Your task to perform on an android device: Go to Yahoo.com Image 0: 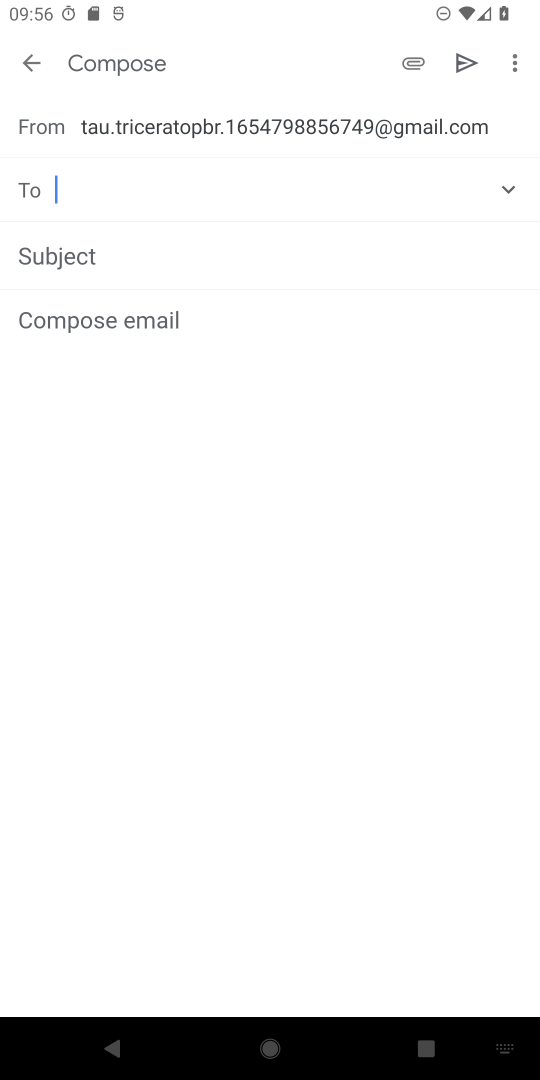
Step 0: press home button
Your task to perform on an android device: Go to Yahoo.com Image 1: 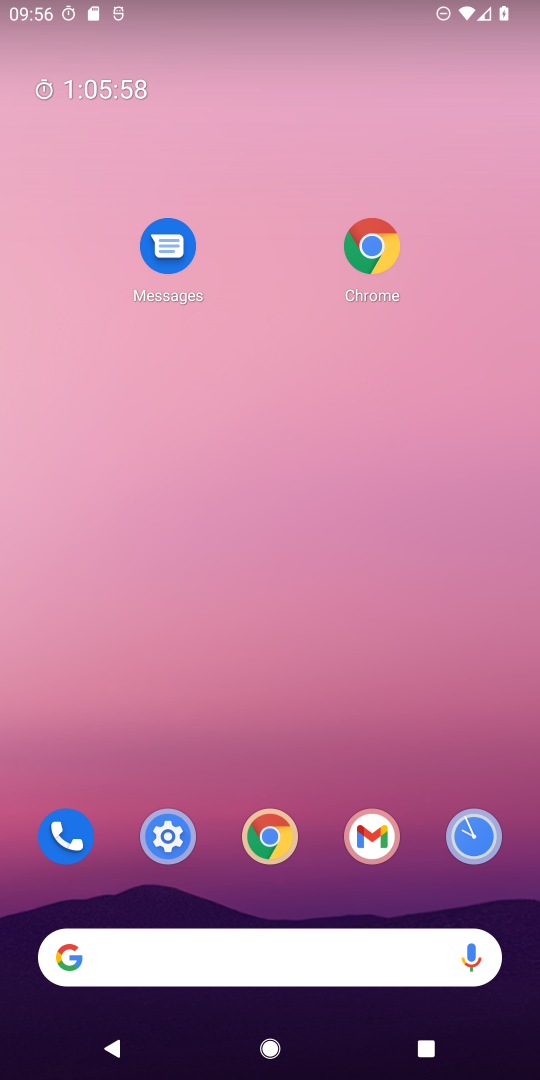
Step 1: drag from (264, 900) to (273, 245)
Your task to perform on an android device: Go to Yahoo.com Image 2: 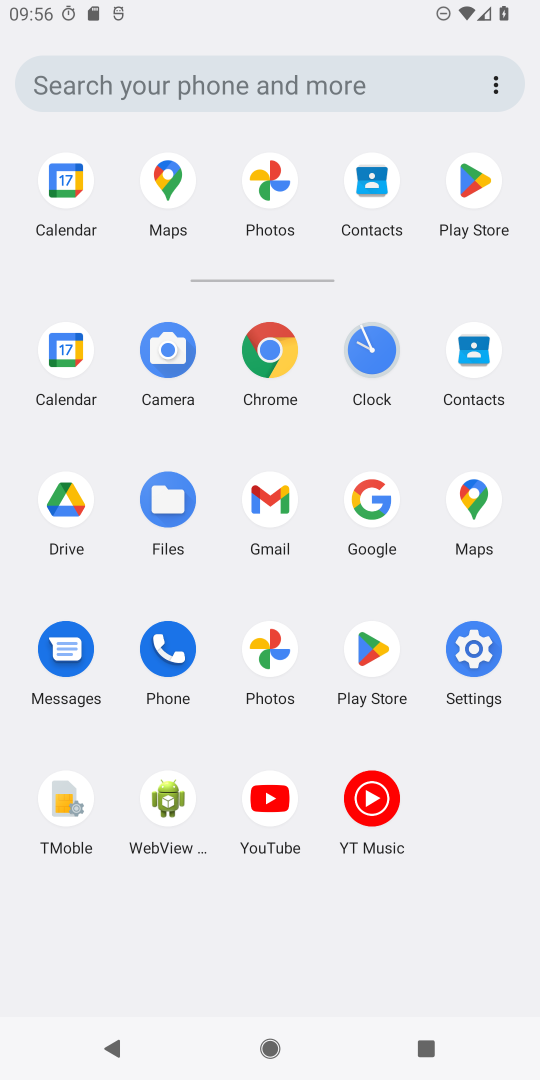
Step 2: click (274, 355)
Your task to perform on an android device: Go to Yahoo.com Image 3: 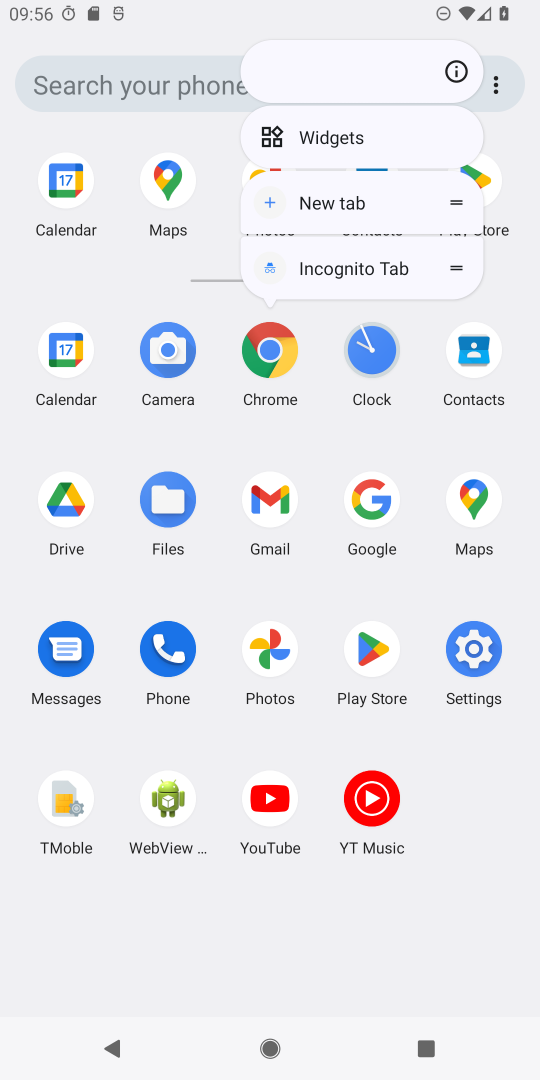
Step 3: click (274, 355)
Your task to perform on an android device: Go to Yahoo.com Image 4: 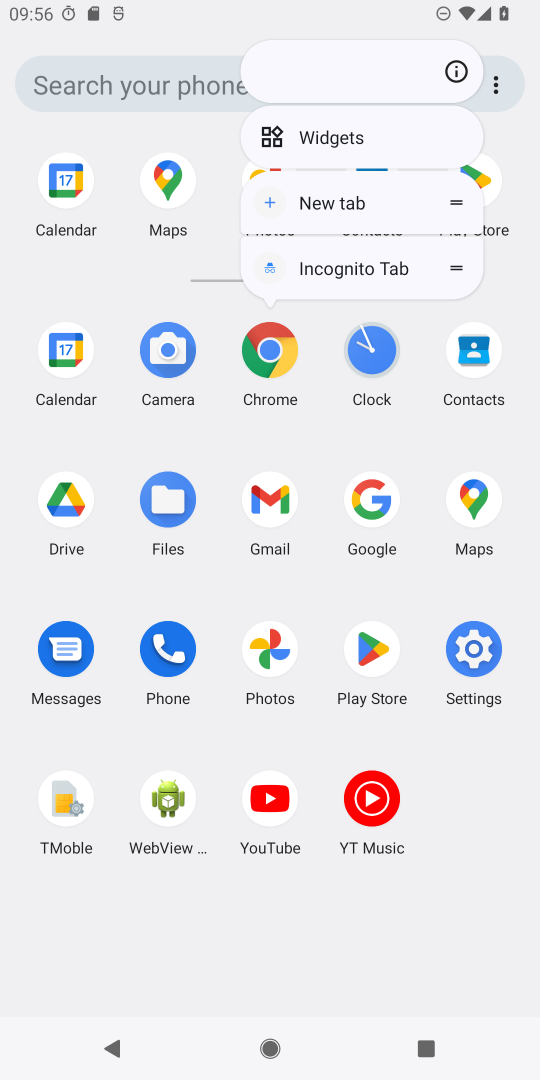
Step 4: click (274, 355)
Your task to perform on an android device: Go to Yahoo.com Image 5: 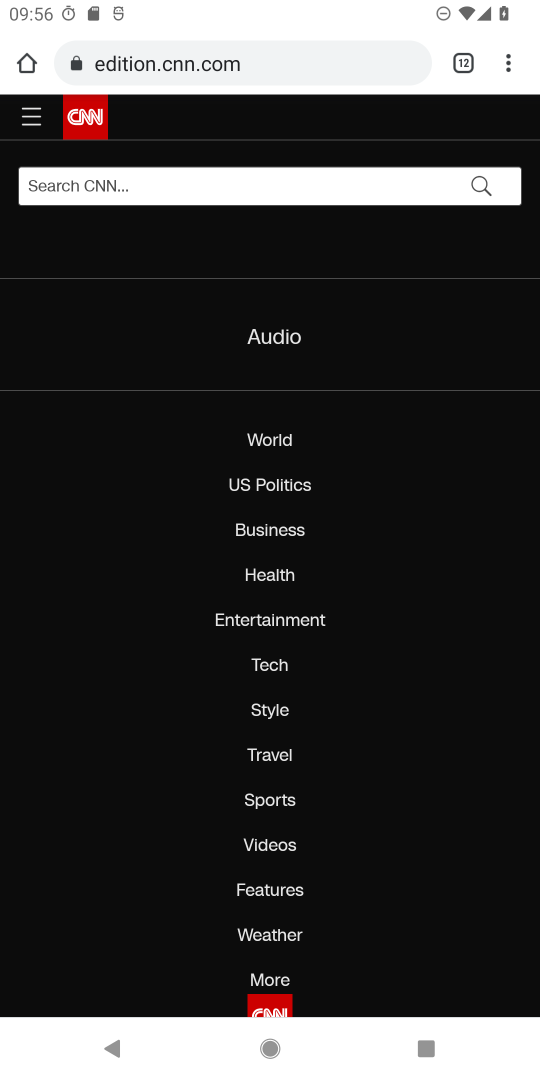
Step 5: click (520, 52)
Your task to perform on an android device: Go to Yahoo.com Image 6: 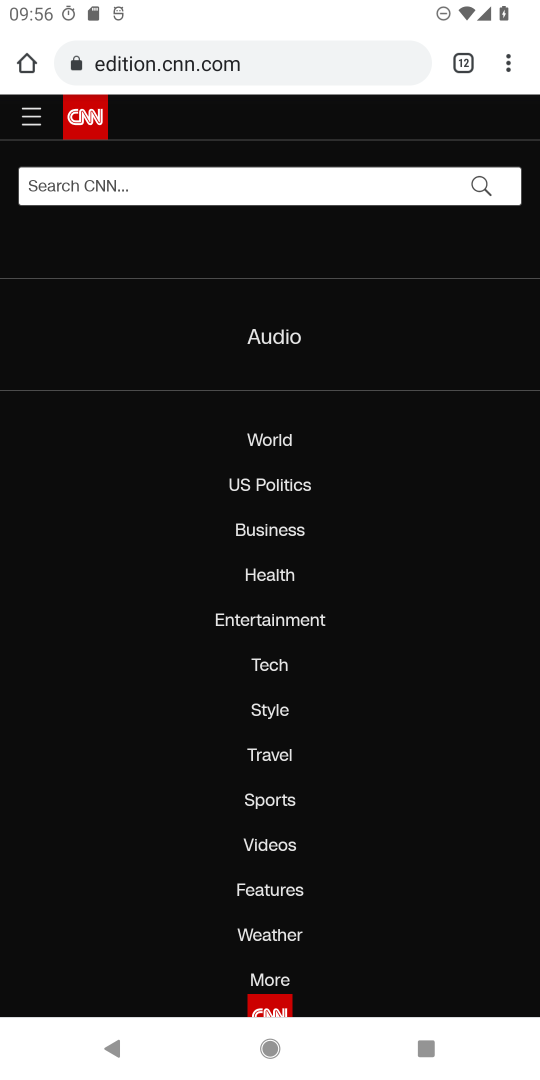
Step 6: click (498, 55)
Your task to perform on an android device: Go to Yahoo.com Image 7: 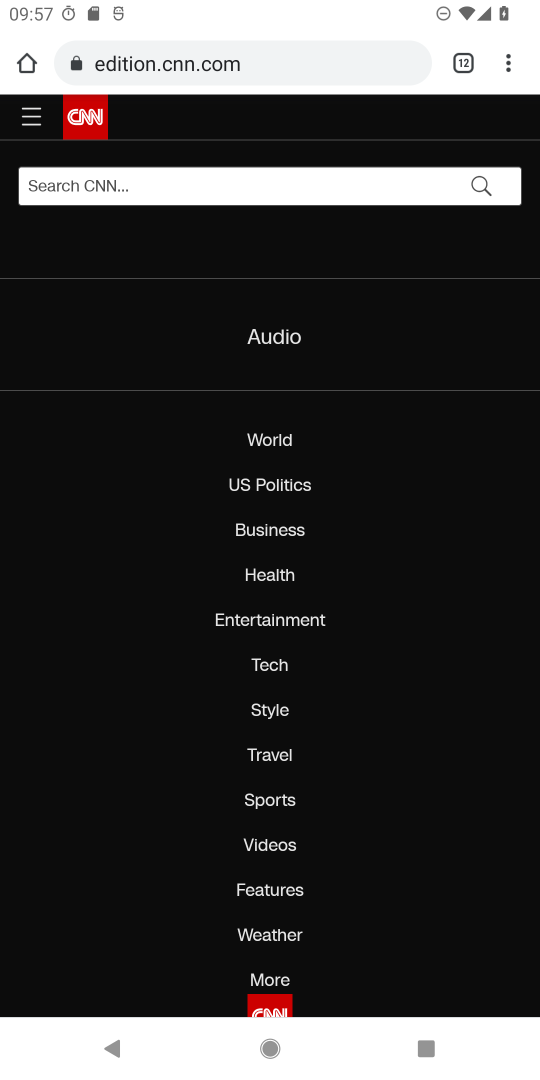
Step 7: click (512, 71)
Your task to perform on an android device: Go to Yahoo.com Image 8: 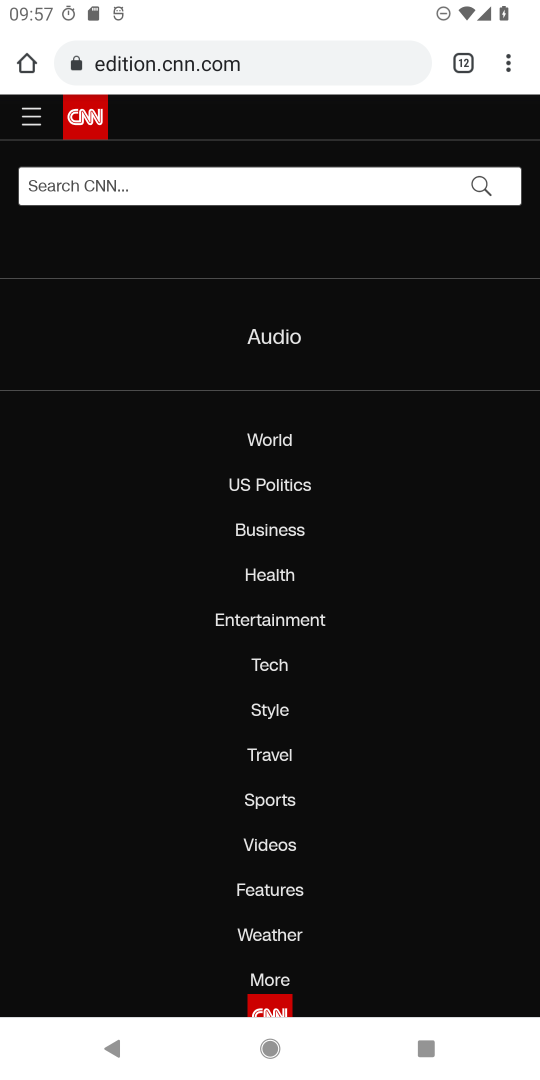
Step 8: click (512, 63)
Your task to perform on an android device: Go to Yahoo.com Image 9: 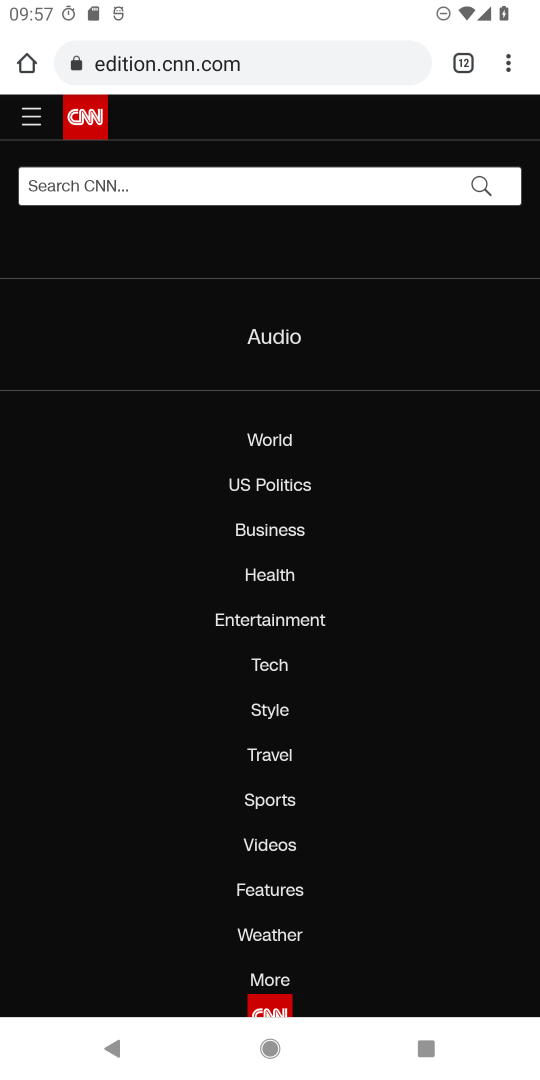
Step 9: click (529, 44)
Your task to perform on an android device: Go to Yahoo.com Image 10: 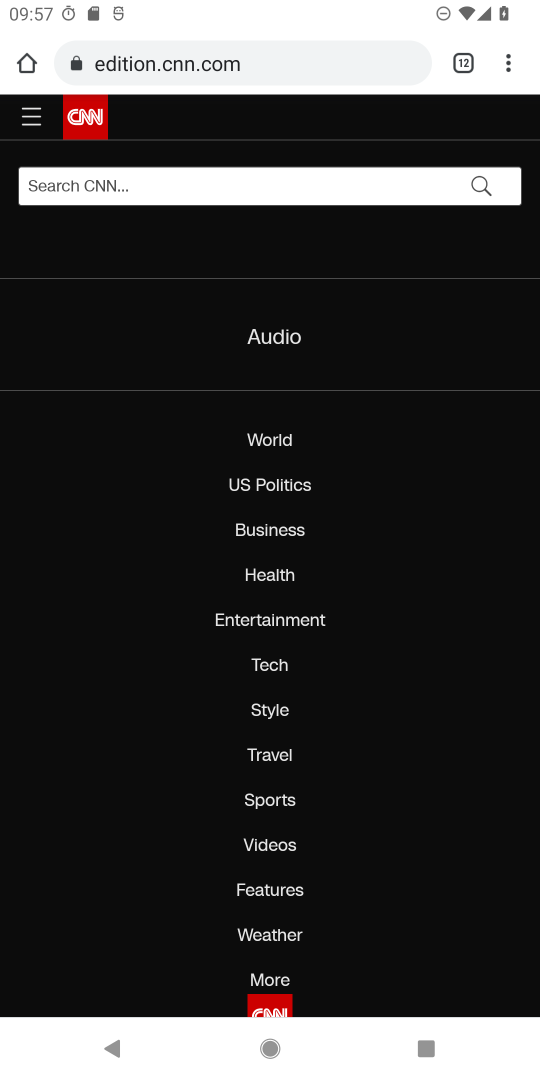
Step 10: click (523, 62)
Your task to perform on an android device: Go to Yahoo.com Image 11: 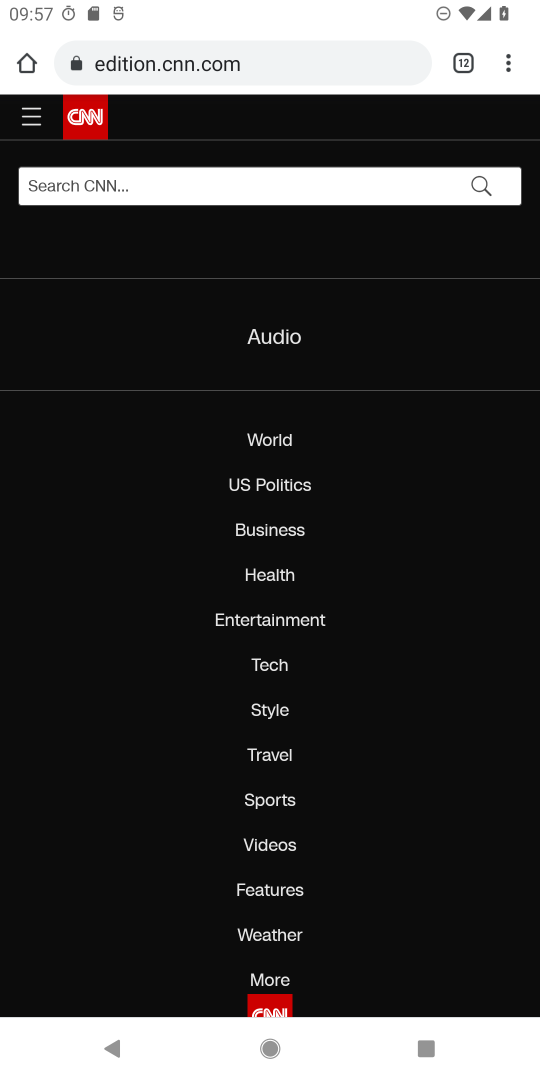
Step 11: click (523, 62)
Your task to perform on an android device: Go to Yahoo.com Image 12: 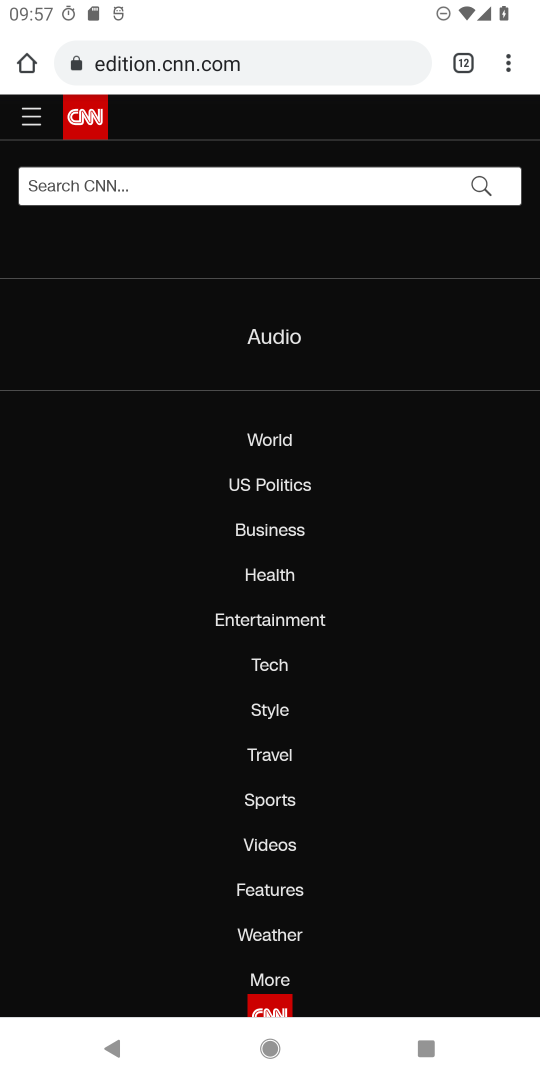
Step 12: click (518, 59)
Your task to perform on an android device: Go to Yahoo.com Image 13: 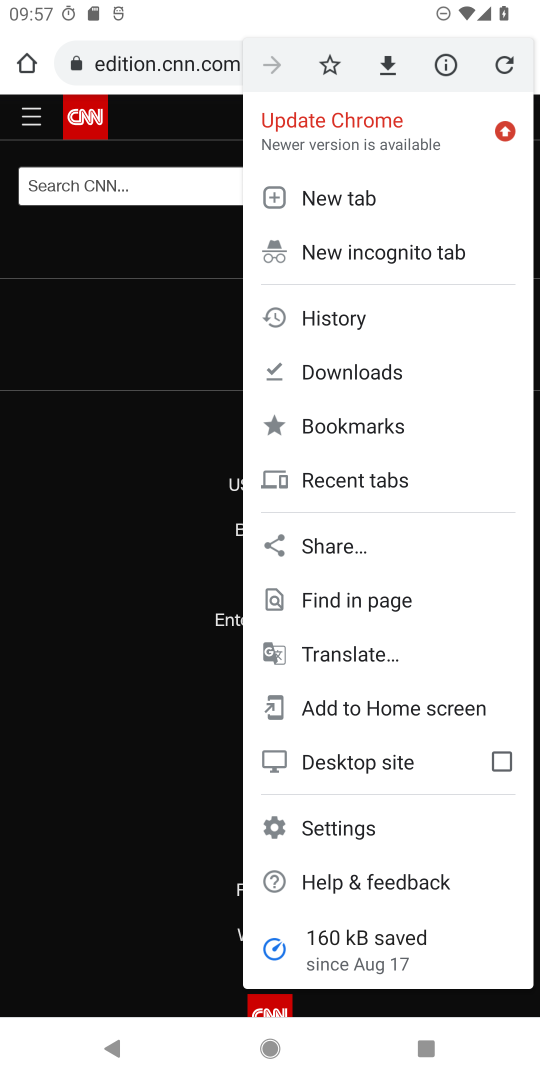
Step 13: click (327, 189)
Your task to perform on an android device: Go to Yahoo.com Image 14: 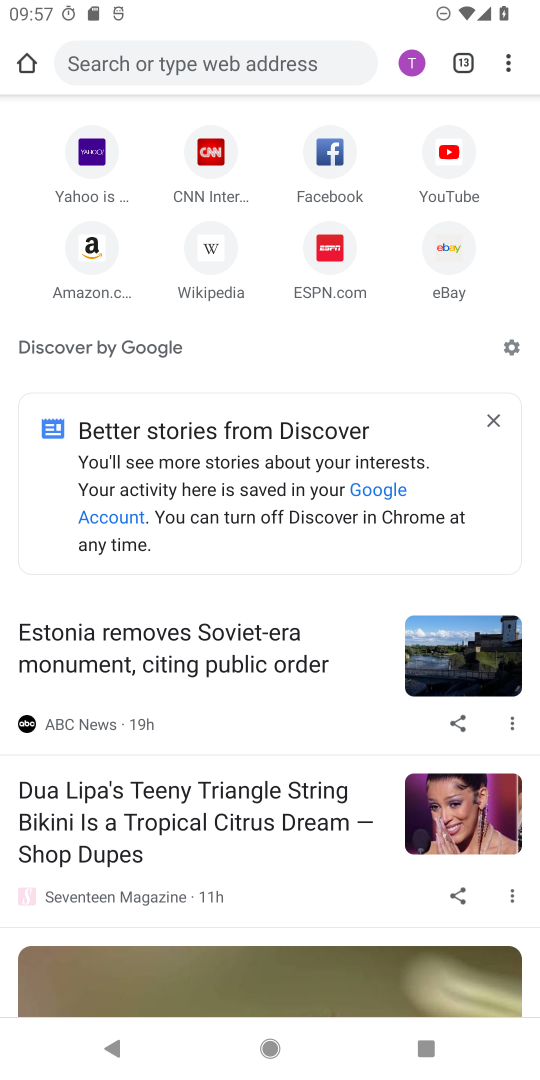
Step 14: click (84, 145)
Your task to perform on an android device: Go to Yahoo.com Image 15: 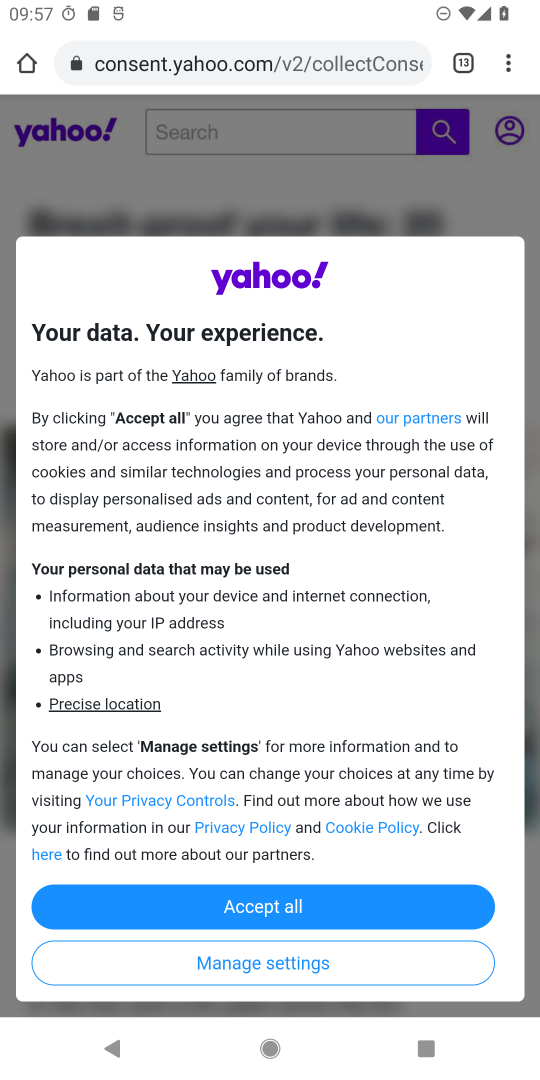
Step 15: task complete